Your task to perform on an android device: visit the assistant section in the google photos Image 0: 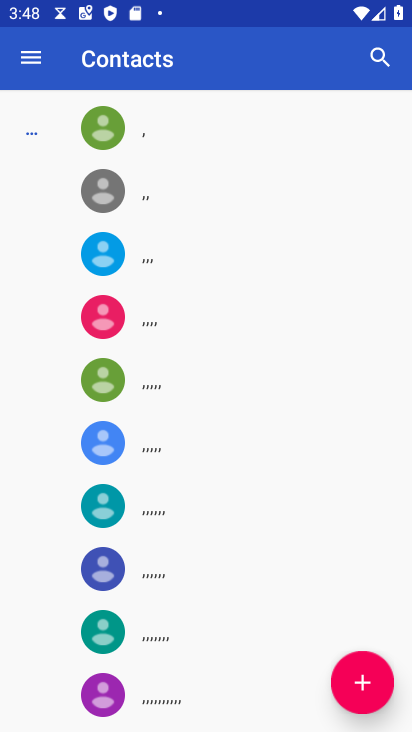
Step 0: press back button
Your task to perform on an android device: visit the assistant section in the google photos Image 1: 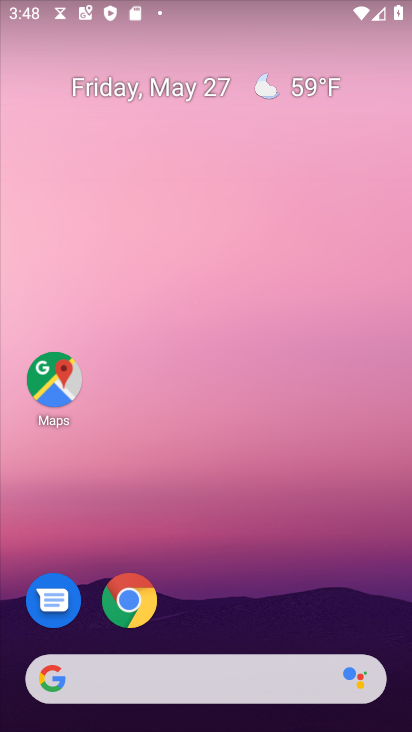
Step 1: drag from (272, 611) to (165, 119)
Your task to perform on an android device: visit the assistant section in the google photos Image 2: 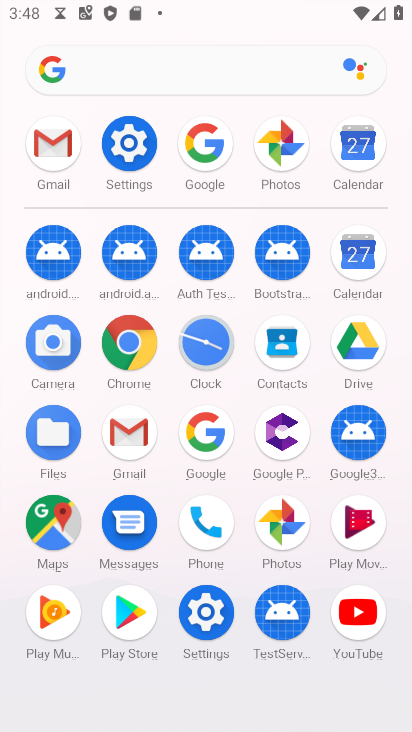
Step 2: click (282, 144)
Your task to perform on an android device: visit the assistant section in the google photos Image 3: 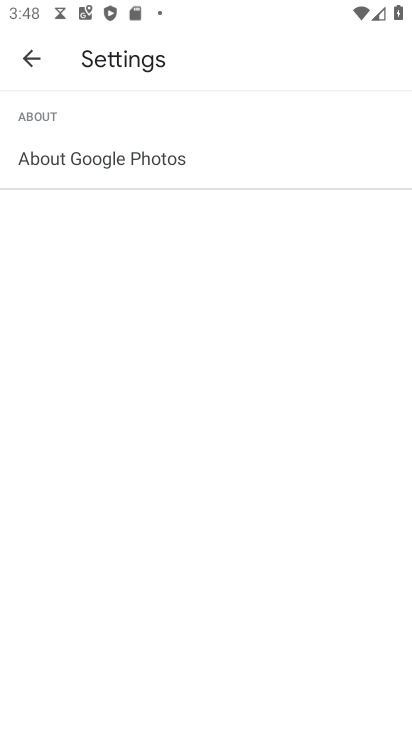
Step 3: click (37, 55)
Your task to perform on an android device: visit the assistant section in the google photos Image 4: 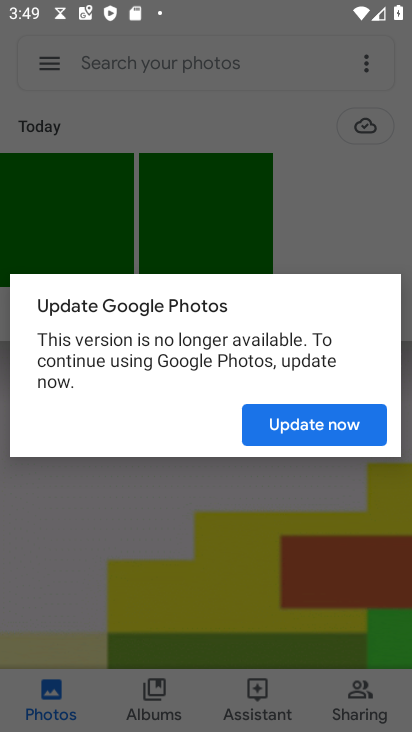
Step 4: click (303, 431)
Your task to perform on an android device: visit the assistant section in the google photos Image 5: 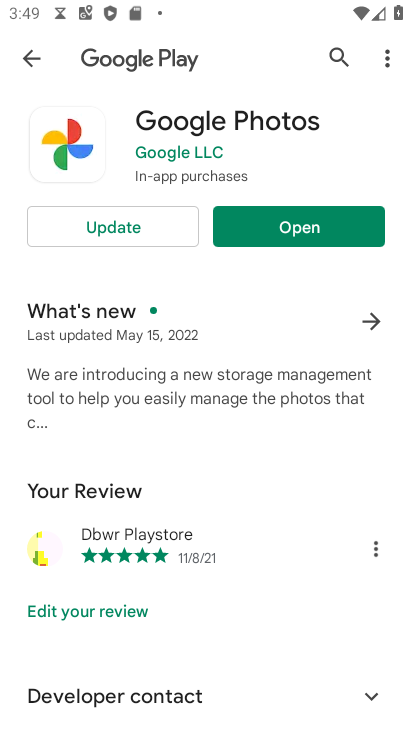
Step 5: click (116, 222)
Your task to perform on an android device: visit the assistant section in the google photos Image 6: 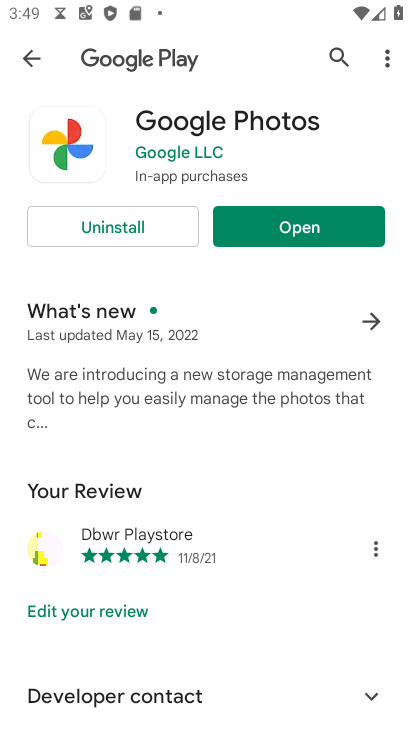
Step 6: click (292, 224)
Your task to perform on an android device: visit the assistant section in the google photos Image 7: 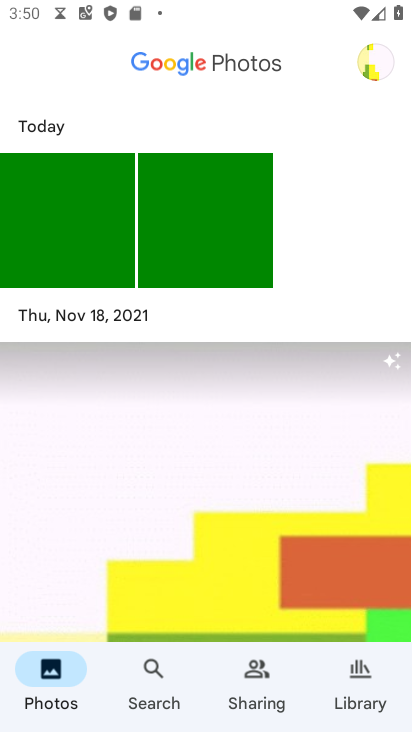
Step 7: click (366, 697)
Your task to perform on an android device: visit the assistant section in the google photos Image 8: 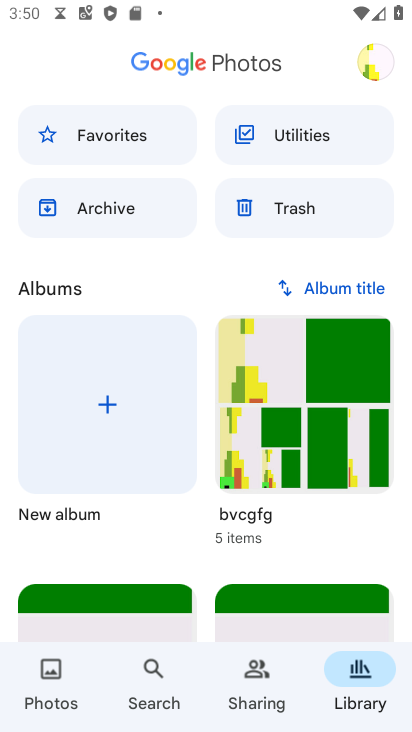
Step 8: click (113, 143)
Your task to perform on an android device: visit the assistant section in the google photos Image 9: 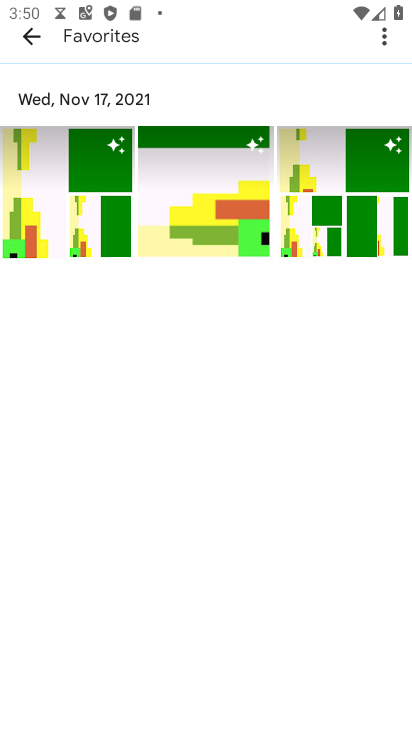
Step 9: drag from (177, 609) to (253, 248)
Your task to perform on an android device: visit the assistant section in the google photos Image 10: 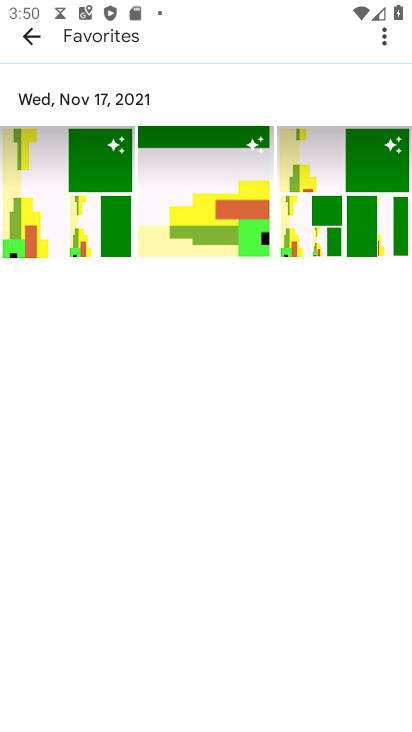
Step 10: click (38, 37)
Your task to perform on an android device: visit the assistant section in the google photos Image 11: 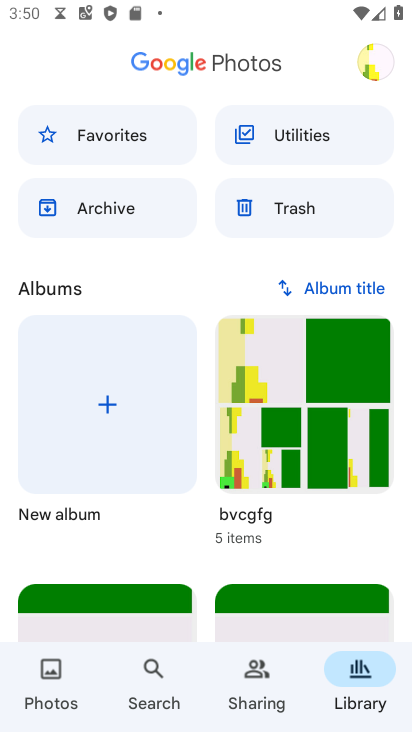
Step 11: click (288, 137)
Your task to perform on an android device: visit the assistant section in the google photos Image 12: 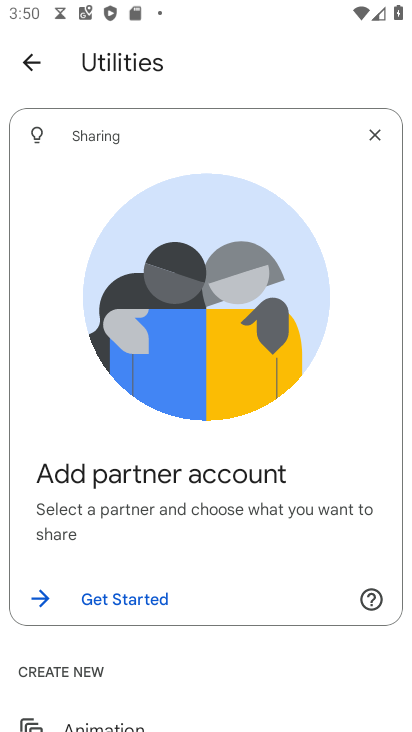
Step 12: task complete